Your task to perform on an android device: Open display settings Image 0: 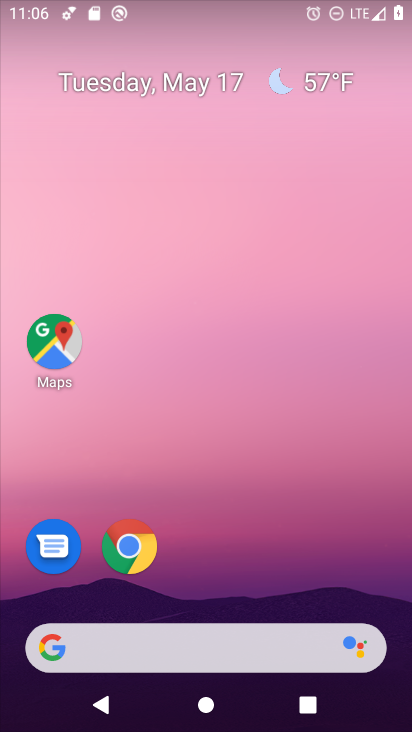
Step 0: drag from (230, 585) to (279, 6)
Your task to perform on an android device: Open display settings Image 1: 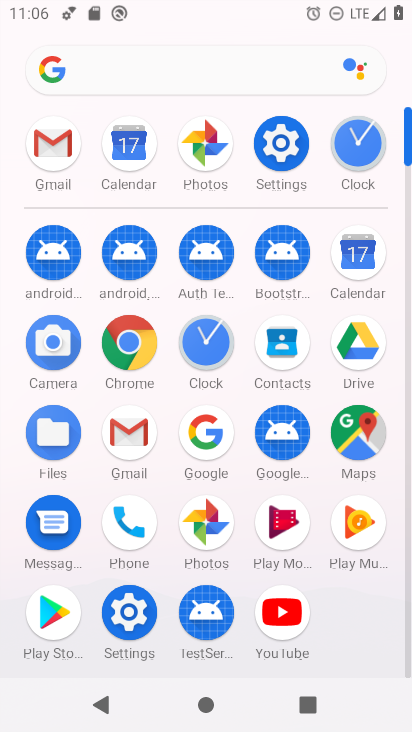
Step 1: click (284, 141)
Your task to perform on an android device: Open display settings Image 2: 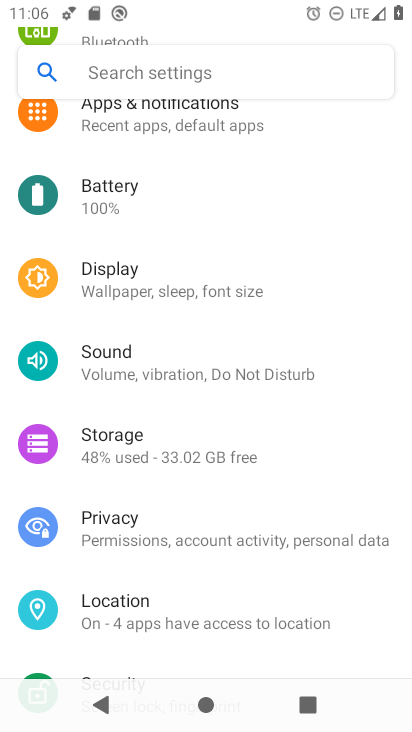
Step 2: click (112, 288)
Your task to perform on an android device: Open display settings Image 3: 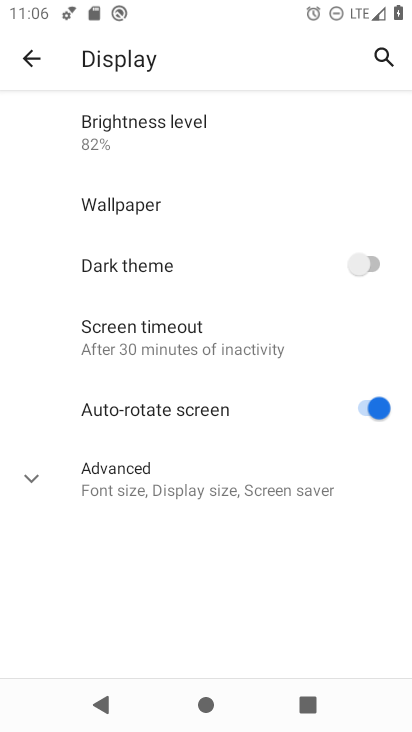
Step 3: task complete